Your task to perform on an android device: Open calendar and show me the first week of next month Image 0: 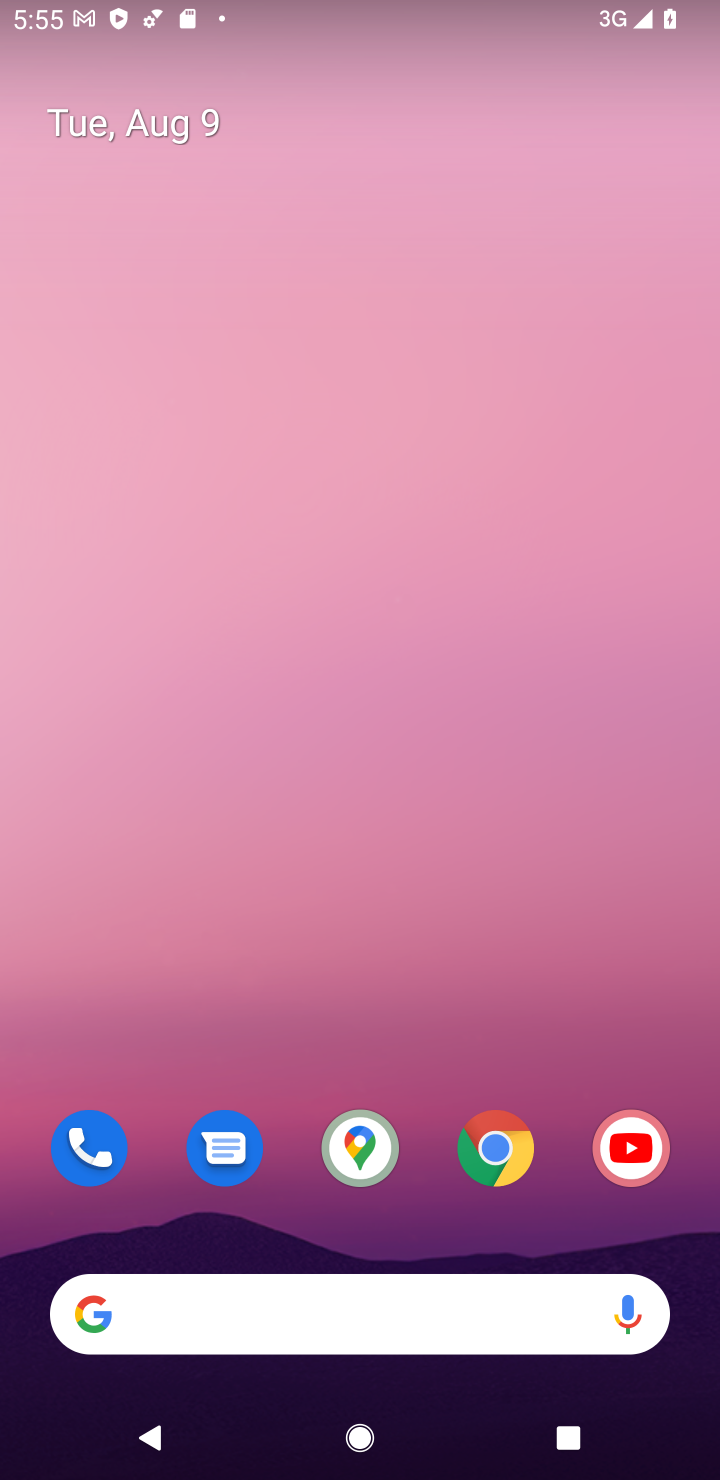
Step 0: drag from (346, 1225) to (422, 38)
Your task to perform on an android device: Open calendar and show me the first week of next month Image 1: 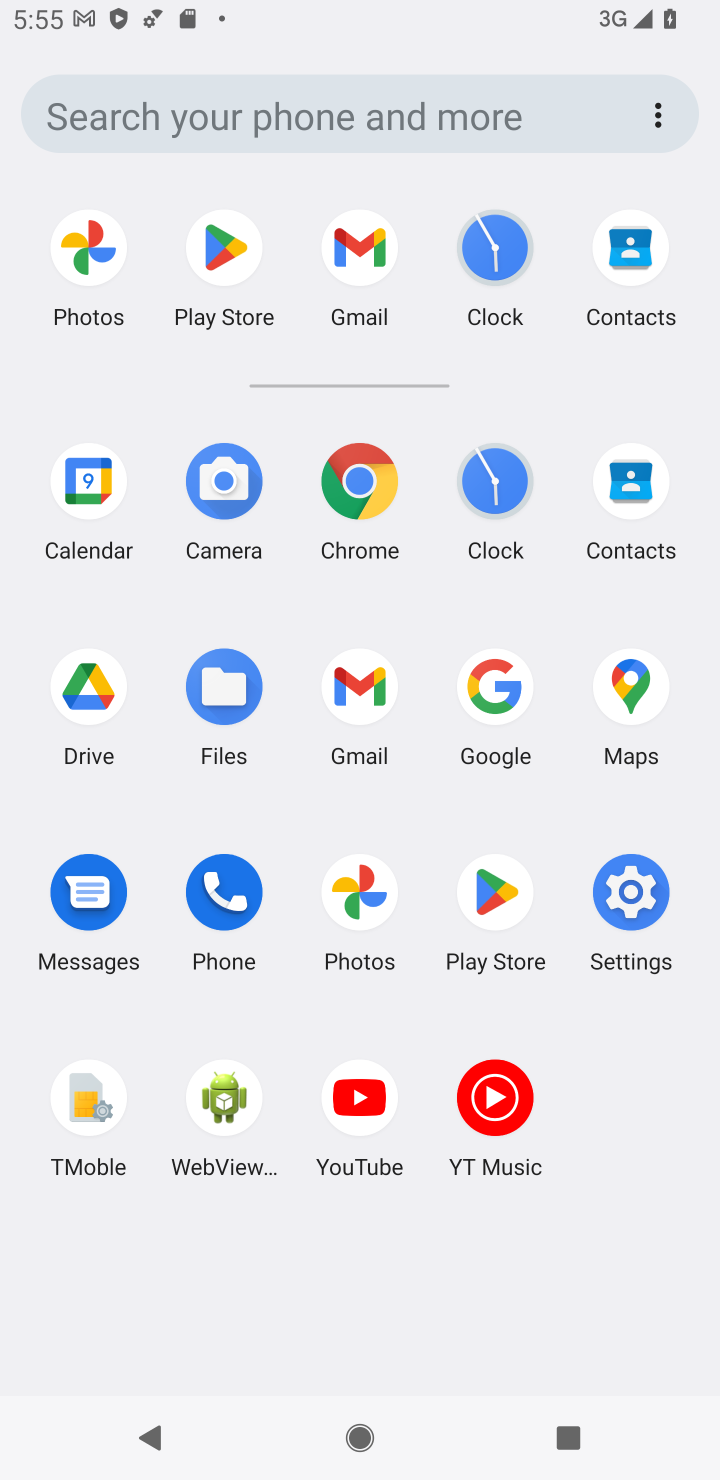
Step 1: click (79, 519)
Your task to perform on an android device: Open calendar and show me the first week of next month Image 2: 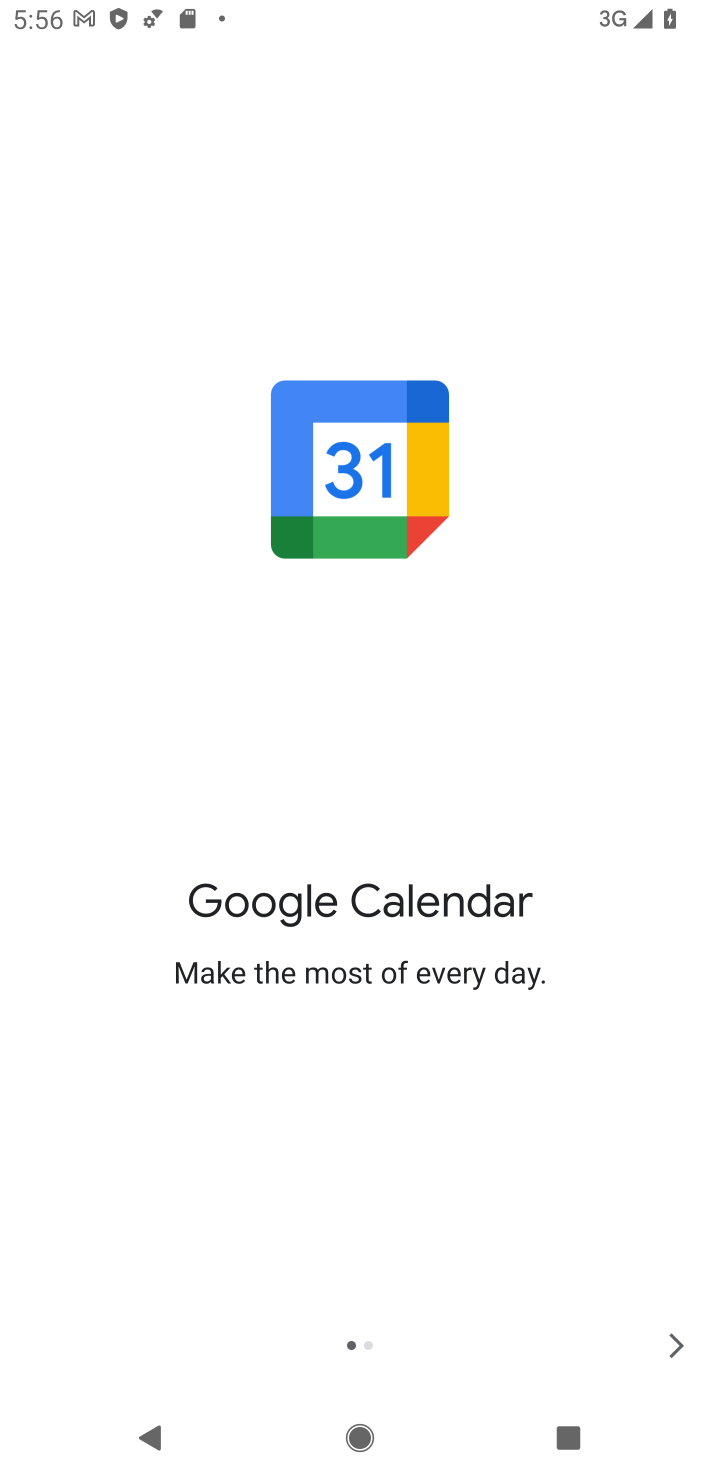
Step 2: click (674, 1345)
Your task to perform on an android device: Open calendar and show me the first week of next month Image 3: 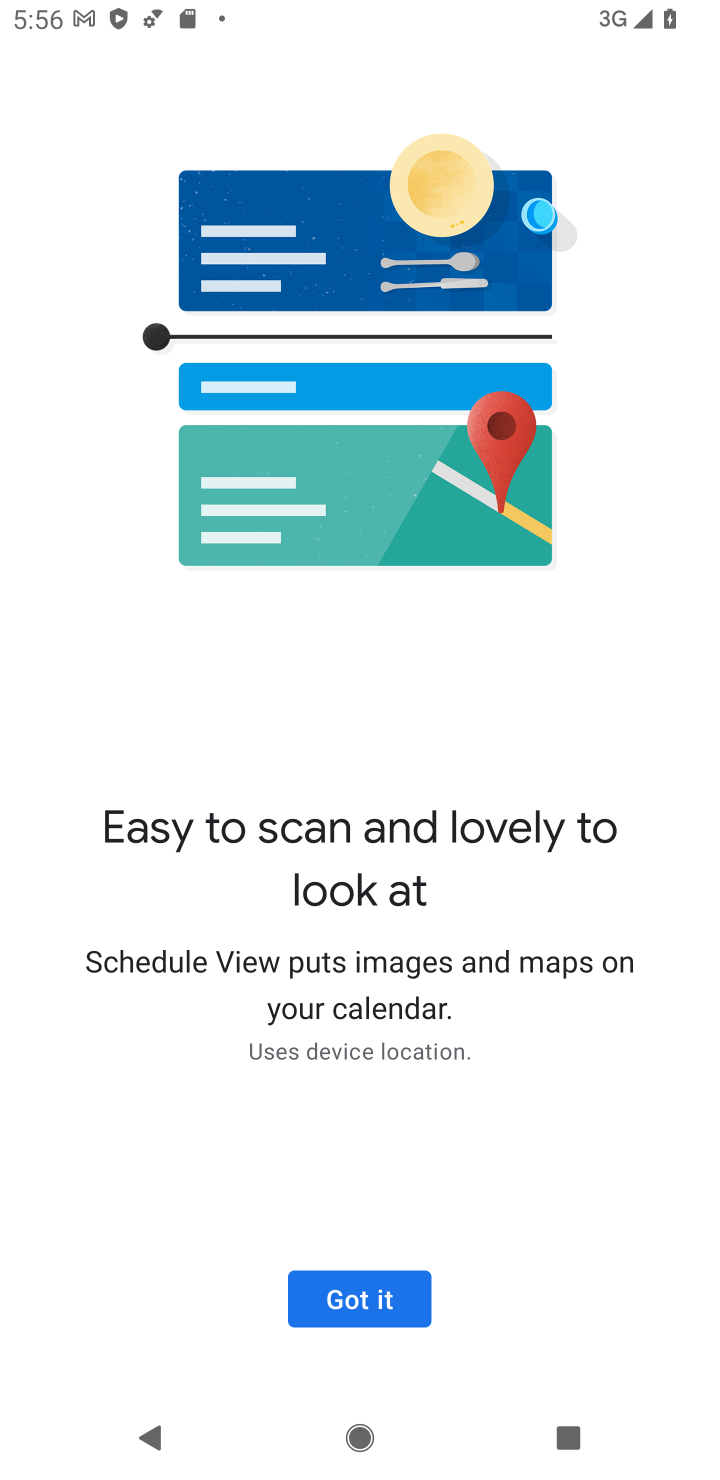
Step 3: click (380, 1299)
Your task to perform on an android device: Open calendar and show me the first week of next month Image 4: 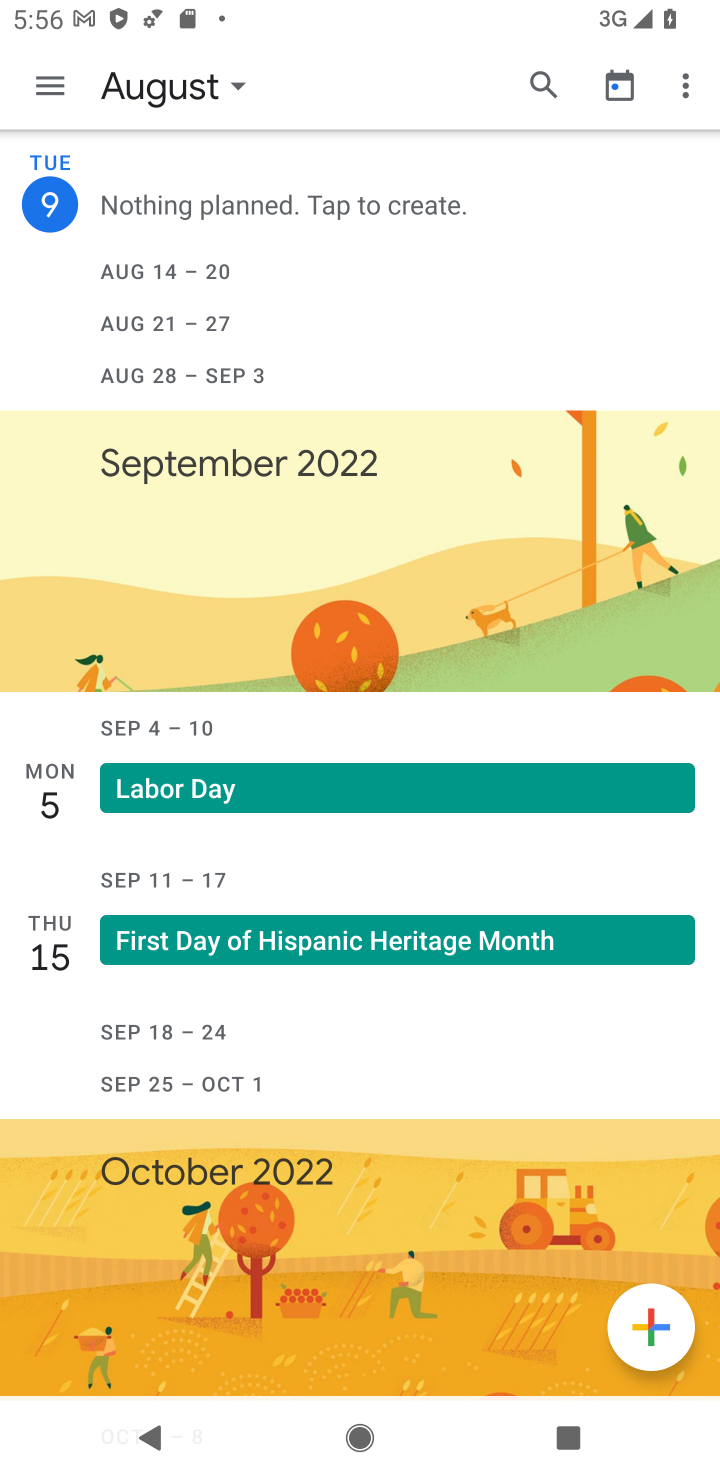
Step 4: click (46, 97)
Your task to perform on an android device: Open calendar and show me the first week of next month Image 5: 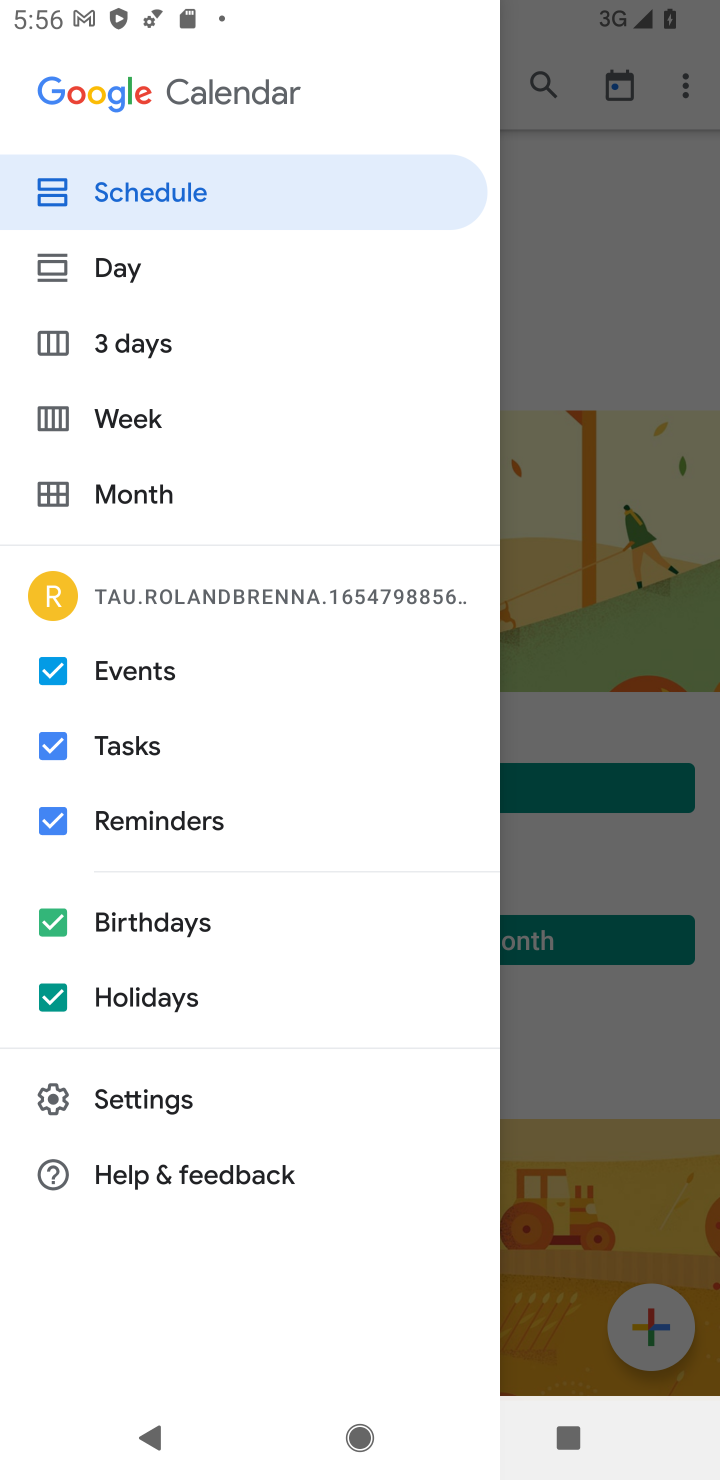
Step 5: click (134, 408)
Your task to perform on an android device: Open calendar and show me the first week of next month Image 6: 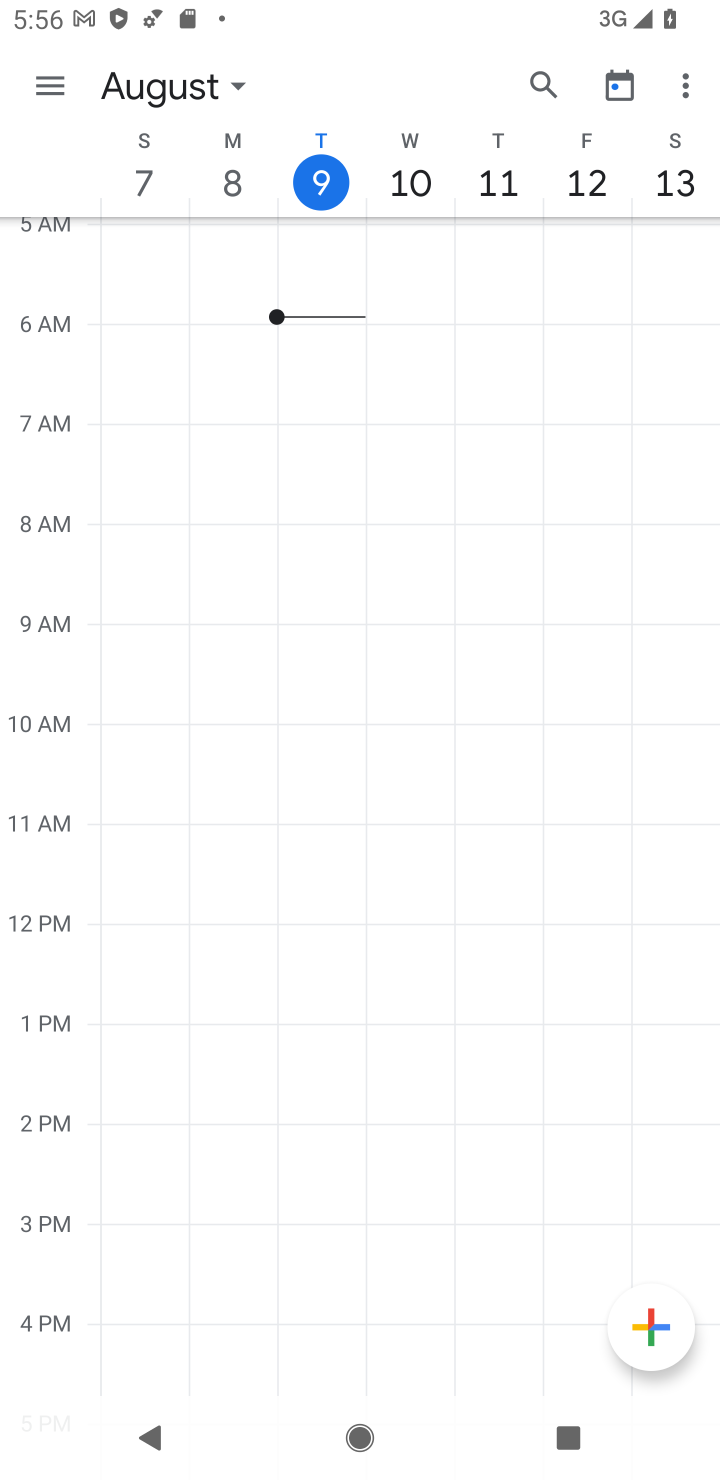
Step 6: click (177, 78)
Your task to perform on an android device: Open calendar and show me the first week of next month Image 7: 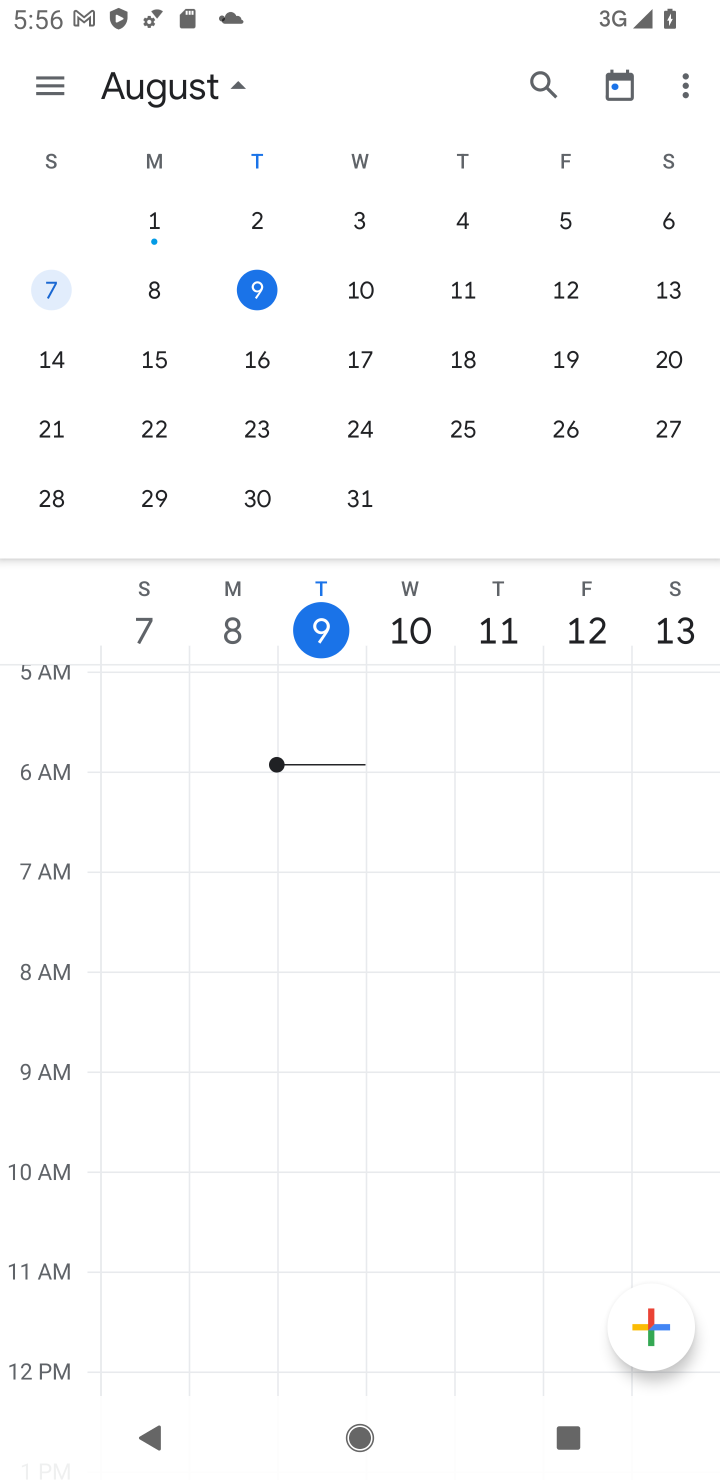
Step 7: drag from (591, 392) to (1, 447)
Your task to perform on an android device: Open calendar and show me the first week of next month Image 8: 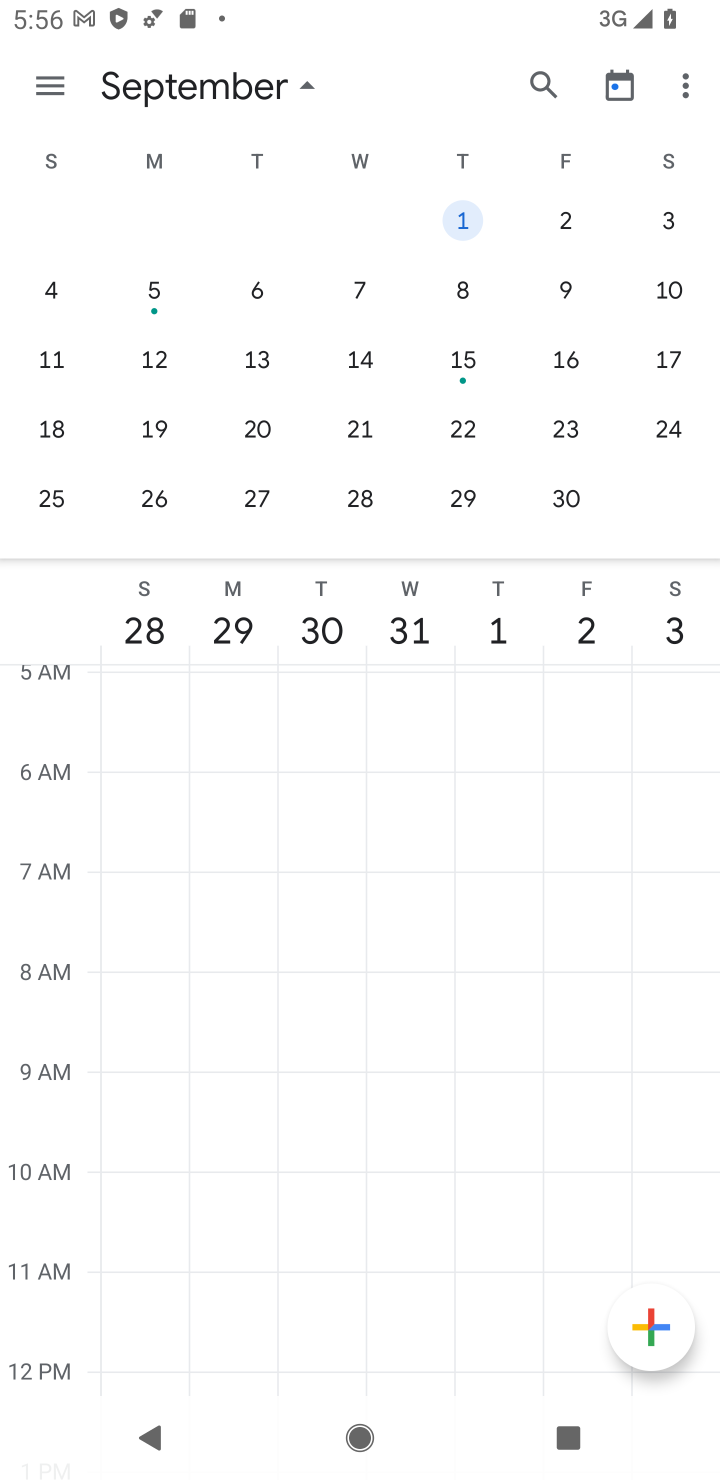
Step 8: click (247, 284)
Your task to perform on an android device: Open calendar and show me the first week of next month Image 9: 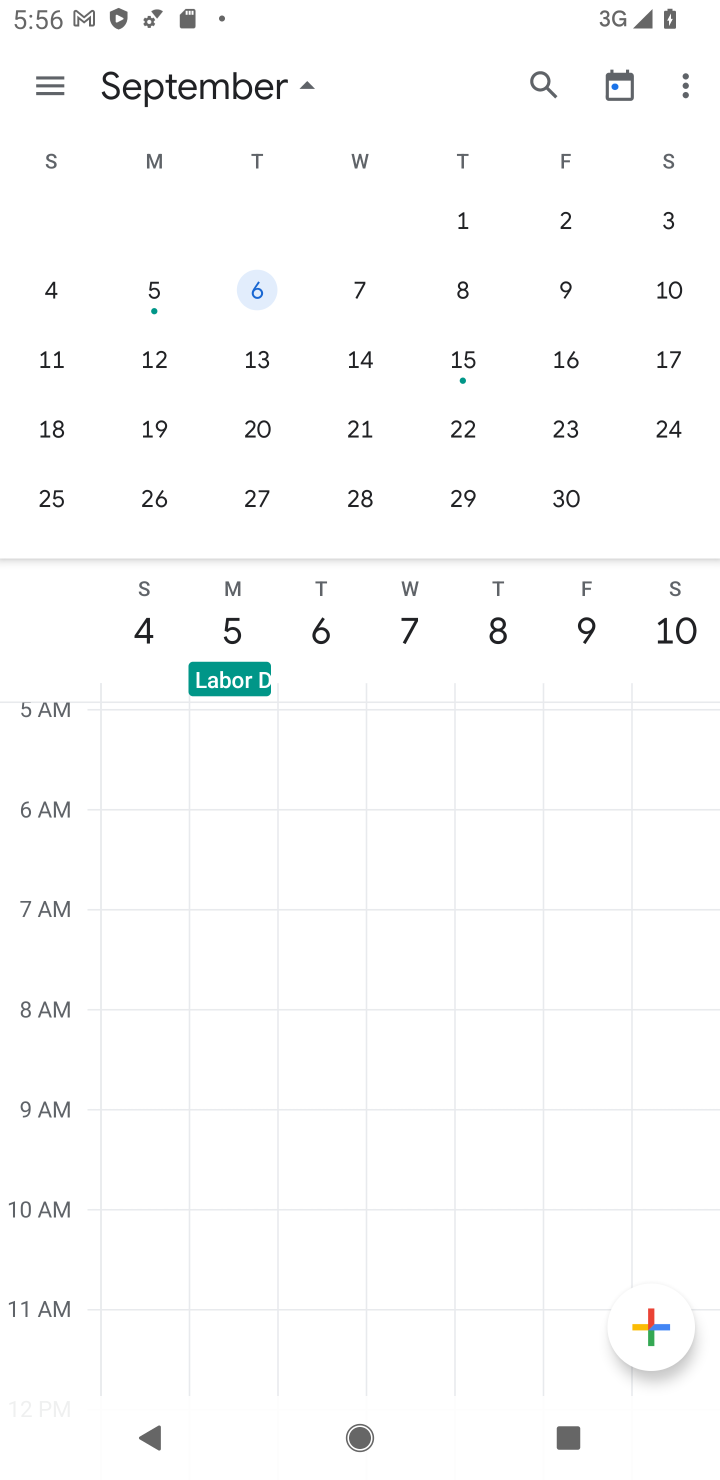
Step 9: task complete